Your task to perform on an android device: read, delete, or share a saved page in the chrome app Image 0: 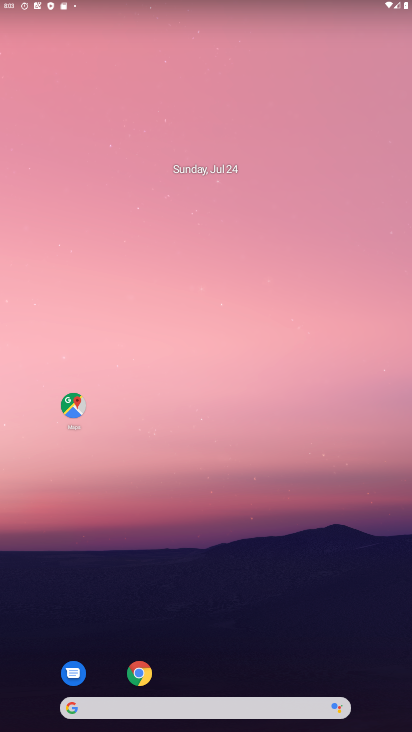
Step 0: drag from (173, 637) to (233, 216)
Your task to perform on an android device: read, delete, or share a saved page in the chrome app Image 1: 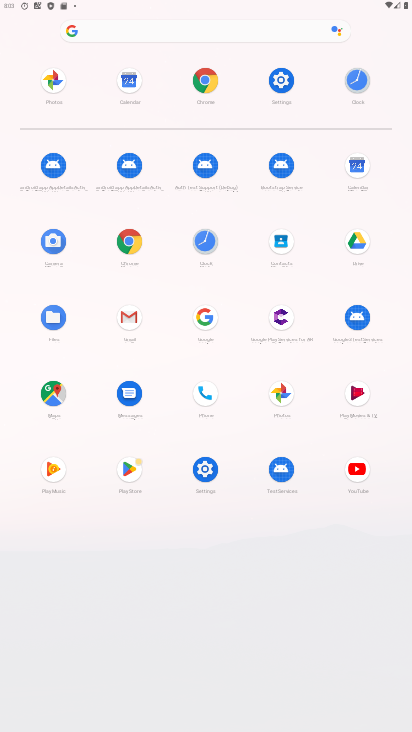
Step 1: click (131, 236)
Your task to perform on an android device: read, delete, or share a saved page in the chrome app Image 2: 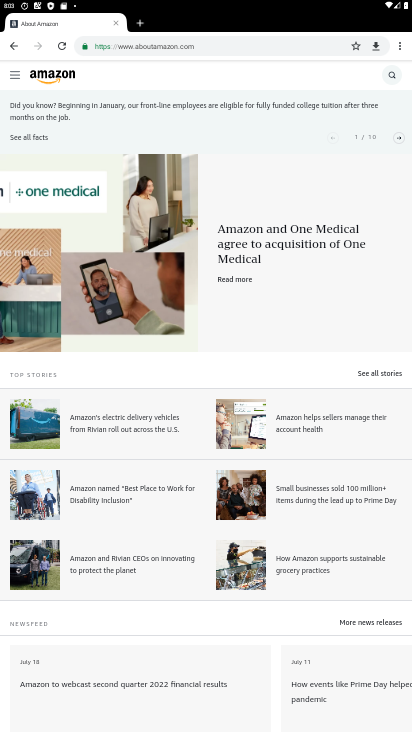
Step 2: drag from (200, 551) to (205, 383)
Your task to perform on an android device: read, delete, or share a saved page in the chrome app Image 3: 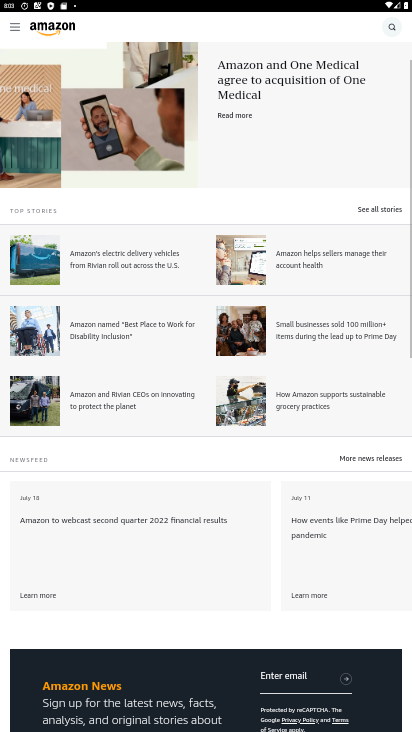
Step 3: drag from (227, 193) to (251, 670)
Your task to perform on an android device: read, delete, or share a saved page in the chrome app Image 4: 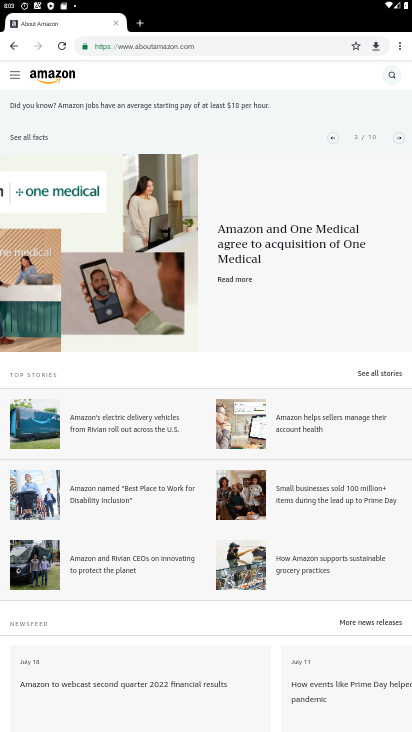
Step 4: click (396, 47)
Your task to perform on an android device: read, delete, or share a saved page in the chrome app Image 5: 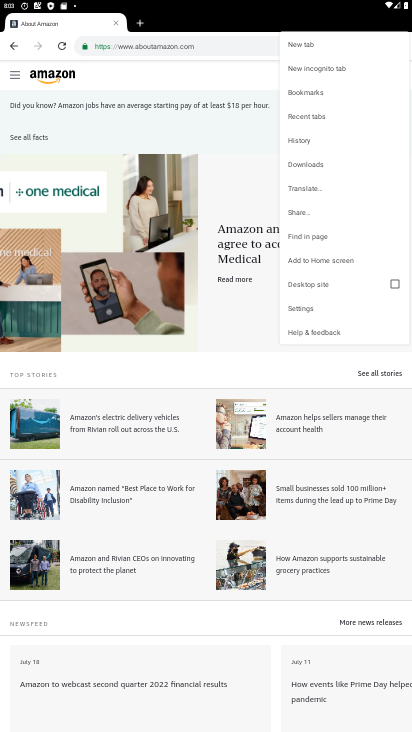
Step 5: click (327, 139)
Your task to perform on an android device: read, delete, or share a saved page in the chrome app Image 6: 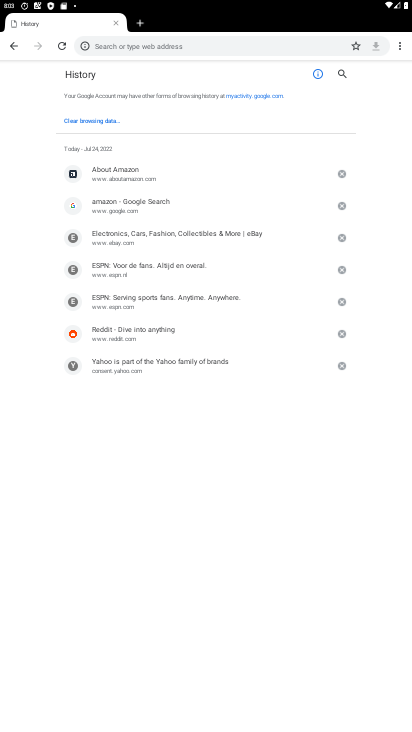
Step 6: drag from (170, 488) to (229, 247)
Your task to perform on an android device: read, delete, or share a saved page in the chrome app Image 7: 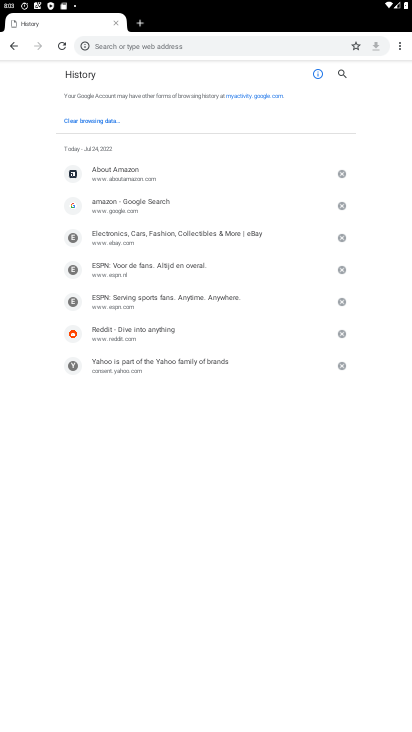
Step 7: drag from (204, 606) to (206, 393)
Your task to perform on an android device: read, delete, or share a saved page in the chrome app Image 8: 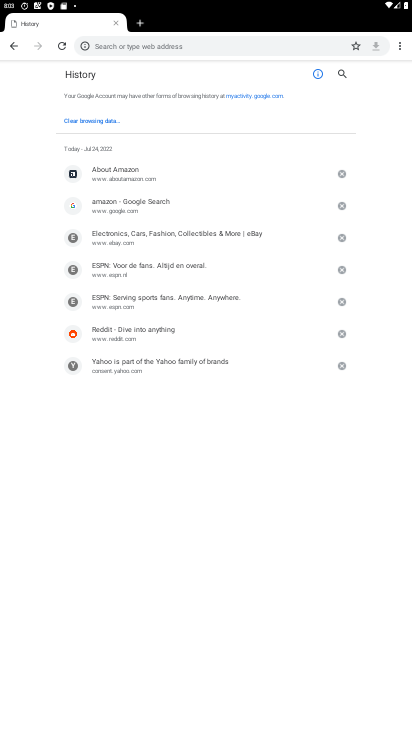
Step 8: drag from (147, 520) to (187, 85)
Your task to perform on an android device: read, delete, or share a saved page in the chrome app Image 9: 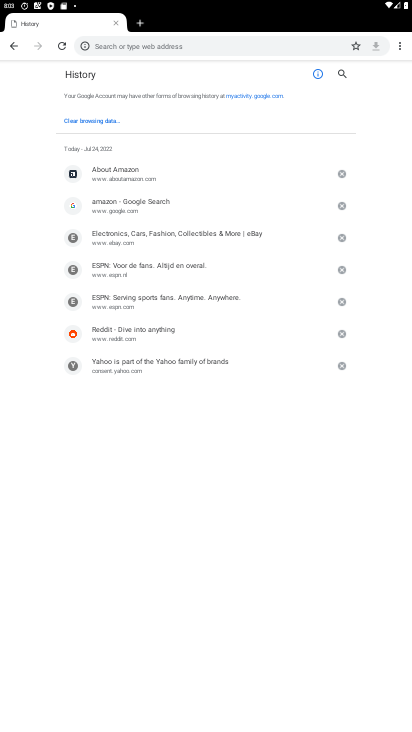
Step 9: drag from (230, 387) to (202, 125)
Your task to perform on an android device: read, delete, or share a saved page in the chrome app Image 10: 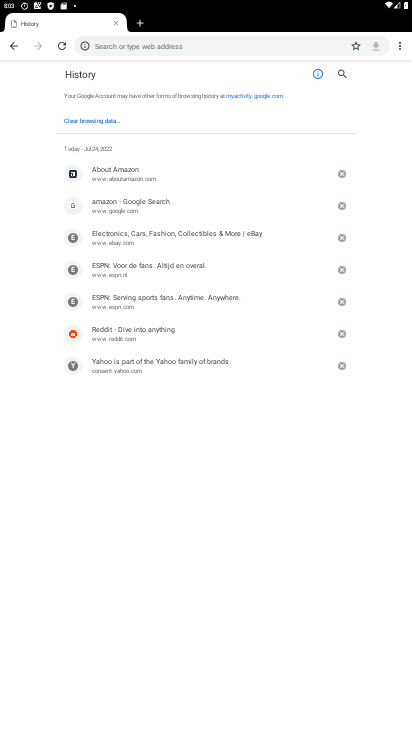
Step 10: drag from (168, 152) to (193, 581)
Your task to perform on an android device: read, delete, or share a saved page in the chrome app Image 11: 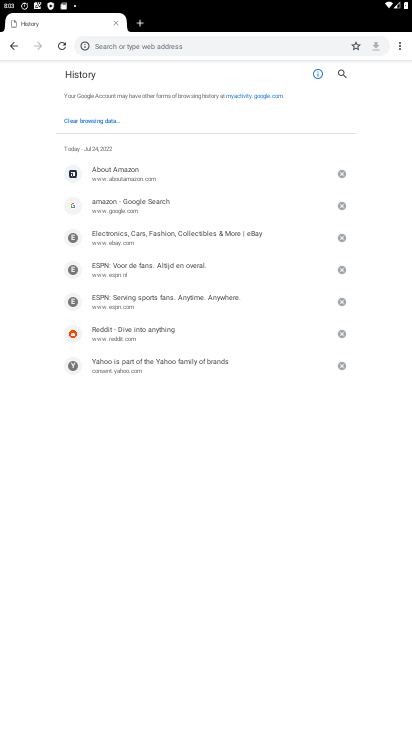
Step 11: click (118, 167)
Your task to perform on an android device: read, delete, or share a saved page in the chrome app Image 12: 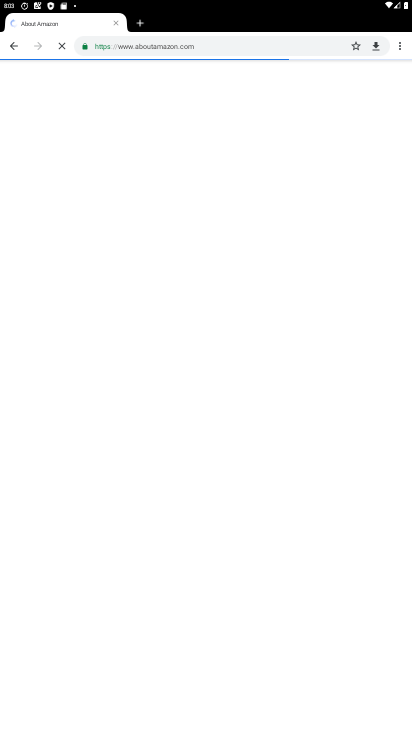
Step 12: task complete